Your task to perform on an android device: Open the stopwatch Image 0: 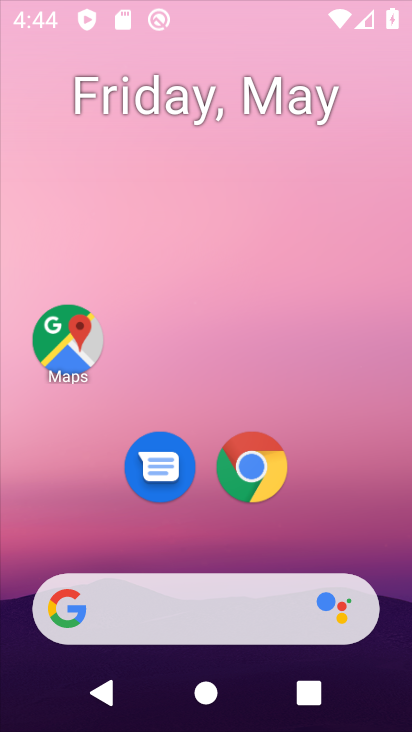
Step 0: click (366, 188)
Your task to perform on an android device: Open the stopwatch Image 1: 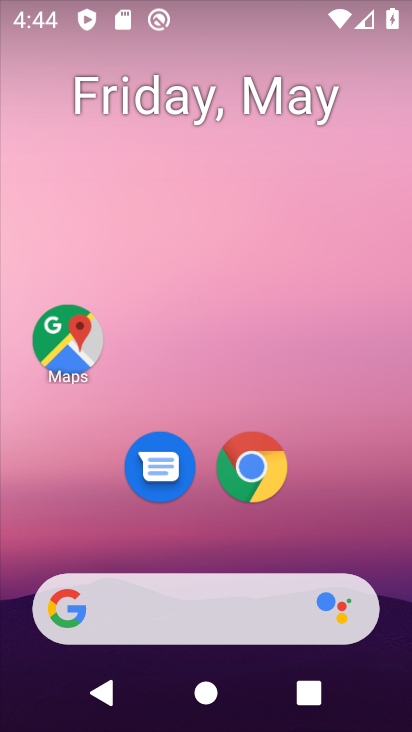
Step 1: drag from (336, 512) to (227, 2)
Your task to perform on an android device: Open the stopwatch Image 2: 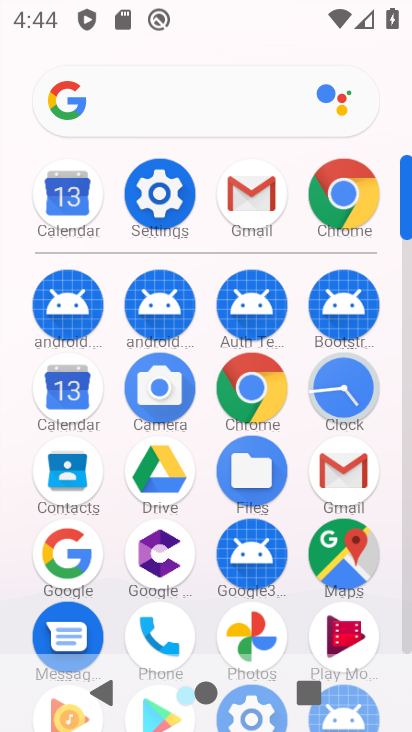
Step 2: click (330, 387)
Your task to perform on an android device: Open the stopwatch Image 3: 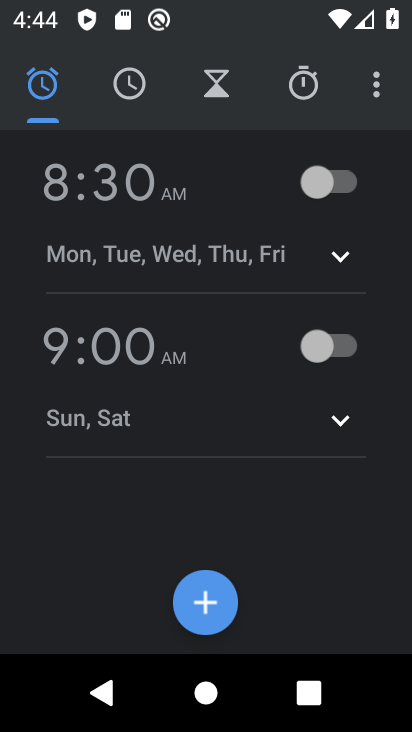
Step 3: click (313, 77)
Your task to perform on an android device: Open the stopwatch Image 4: 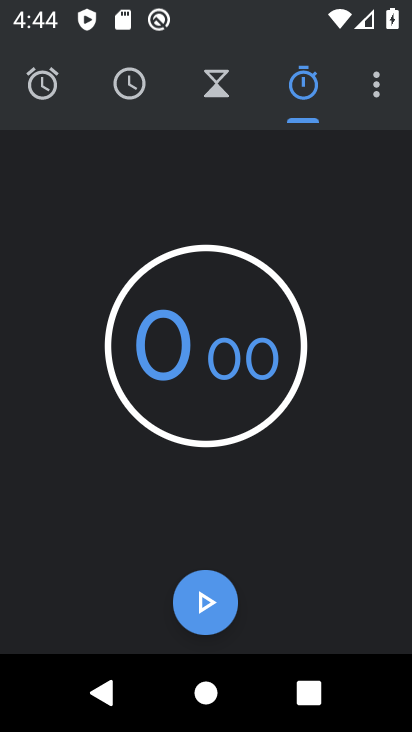
Step 4: click (226, 594)
Your task to perform on an android device: Open the stopwatch Image 5: 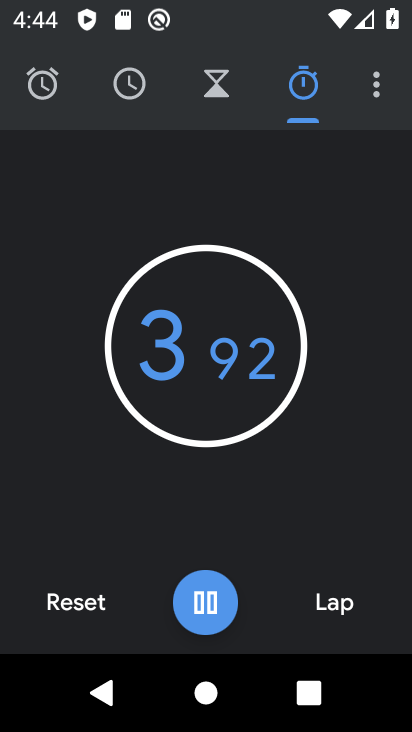
Step 5: click (202, 611)
Your task to perform on an android device: Open the stopwatch Image 6: 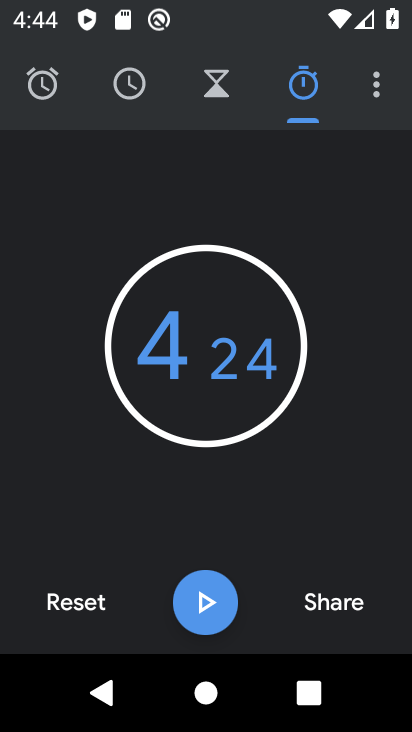
Step 6: task complete